Your task to perform on an android device: Search for Mexican restaurants on Maps Image 0: 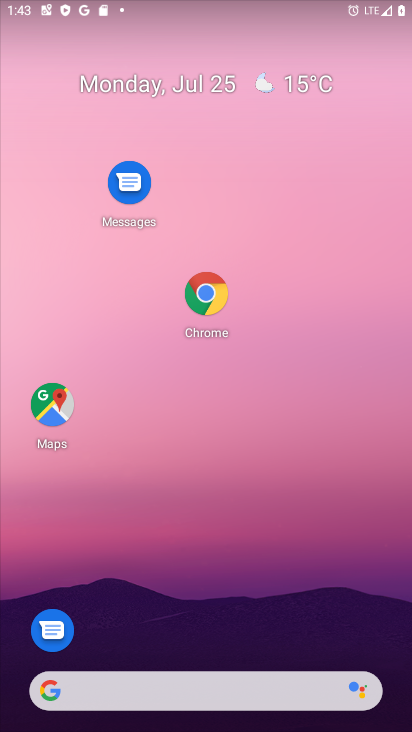
Step 0: click (65, 395)
Your task to perform on an android device: Search for Mexican restaurants on Maps Image 1: 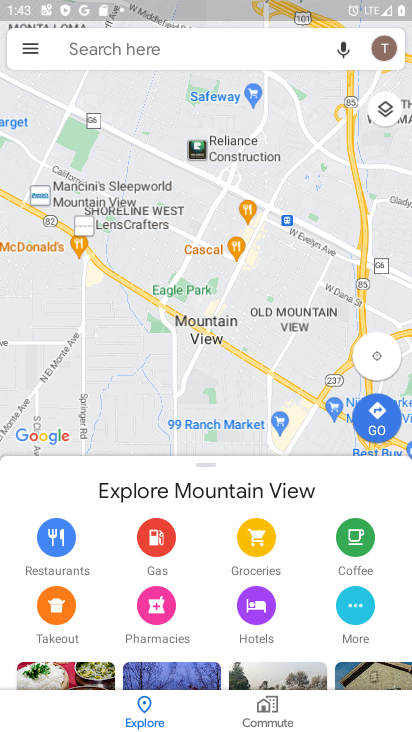
Step 1: click (98, 46)
Your task to perform on an android device: Search for Mexican restaurants on Maps Image 2: 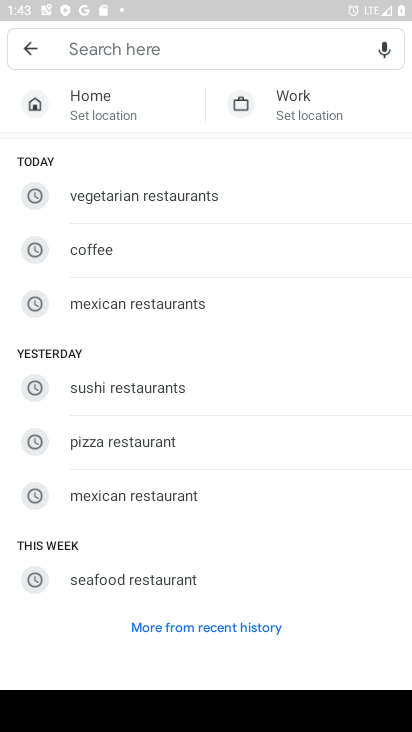
Step 2: type " Mexican restaurants "
Your task to perform on an android device: Search for Mexican restaurants on Maps Image 3: 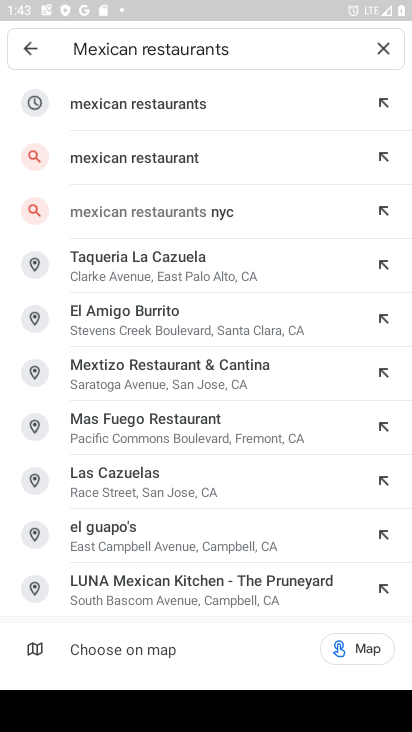
Step 3: click (139, 91)
Your task to perform on an android device: Search for Mexican restaurants on Maps Image 4: 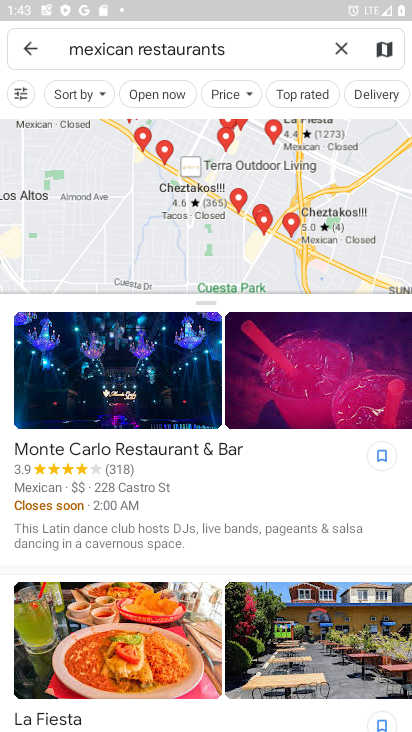
Step 4: task complete